Your task to perform on an android device: turn off sleep mode Image 0: 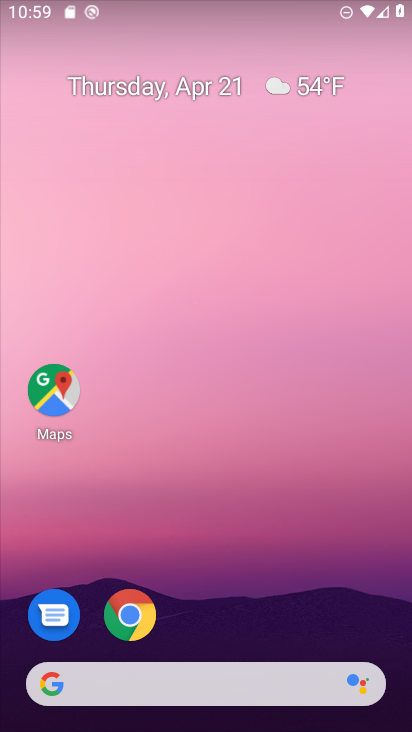
Step 0: drag from (288, 625) to (297, 115)
Your task to perform on an android device: turn off sleep mode Image 1: 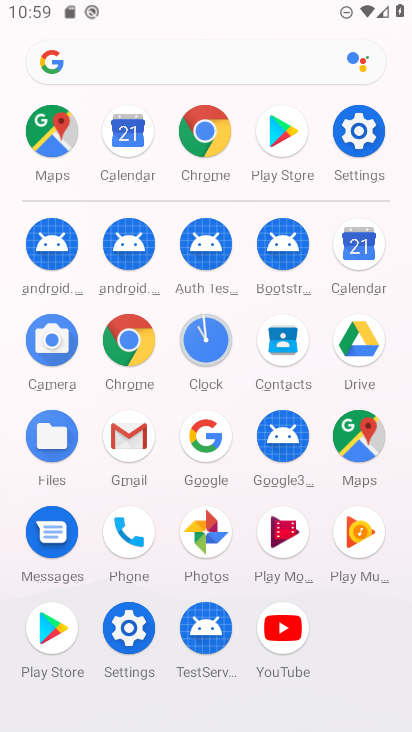
Step 1: click (370, 134)
Your task to perform on an android device: turn off sleep mode Image 2: 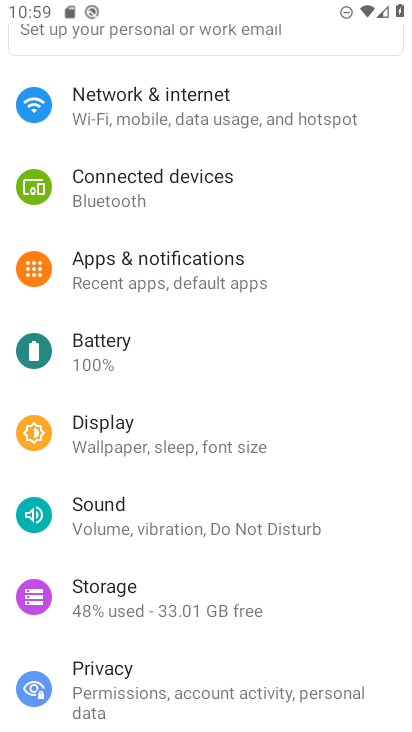
Step 2: drag from (235, 588) to (229, 484)
Your task to perform on an android device: turn off sleep mode Image 3: 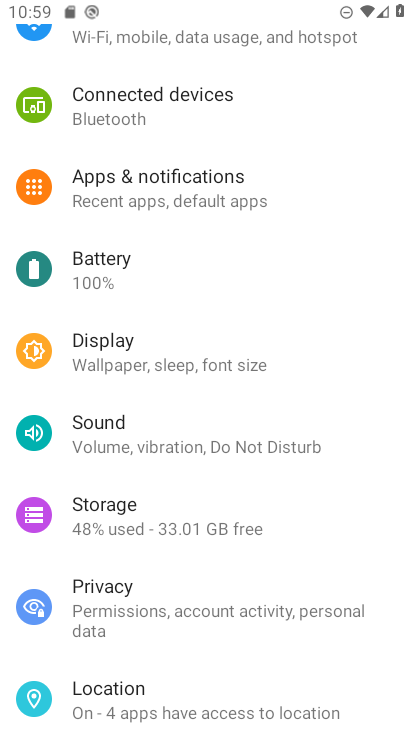
Step 3: drag from (219, 526) to (214, 455)
Your task to perform on an android device: turn off sleep mode Image 4: 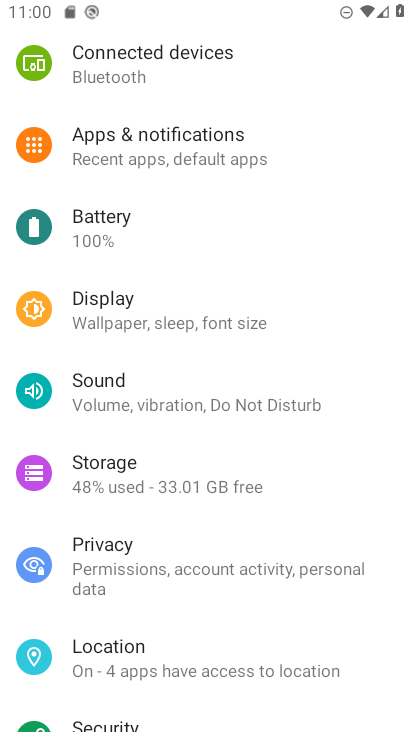
Step 4: drag from (182, 524) to (179, 462)
Your task to perform on an android device: turn off sleep mode Image 5: 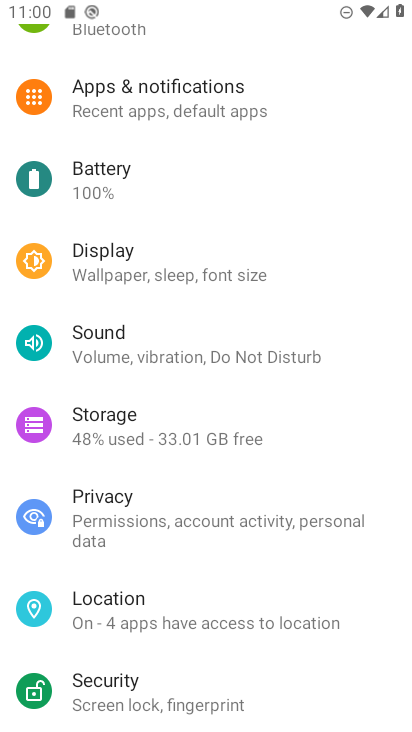
Step 5: drag from (181, 553) to (178, 464)
Your task to perform on an android device: turn off sleep mode Image 6: 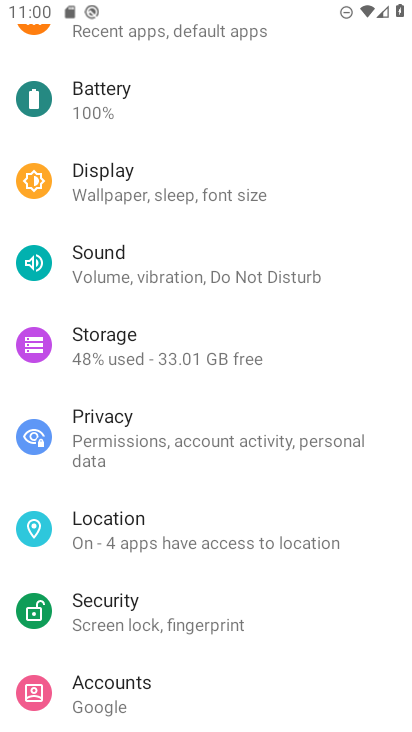
Step 6: drag from (176, 541) to (174, 441)
Your task to perform on an android device: turn off sleep mode Image 7: 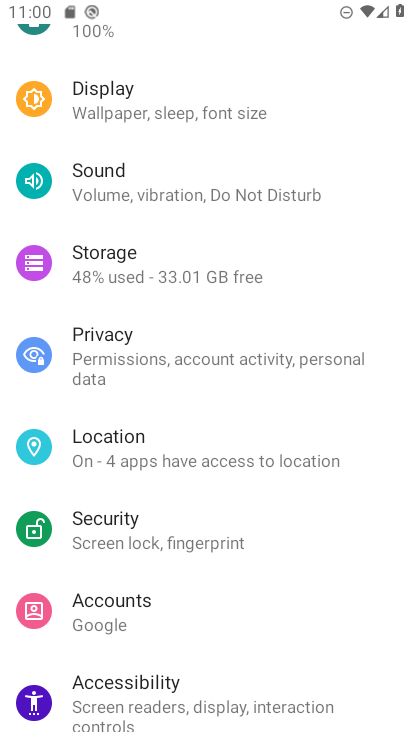
Step 7: drag from (177, 555) to (173, 481)
Your task to perform on an android device: turn off sleep mode Image 8: 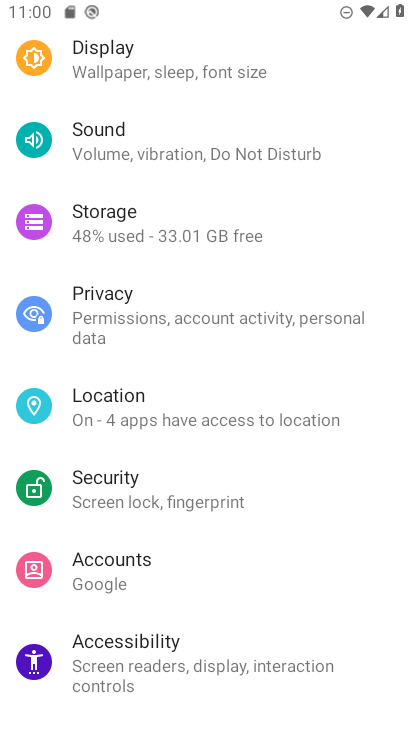
Step 8: drag from (176, 547) to (173, 482)
Your task to perform on an android device: turn off sleep mode Image 9: 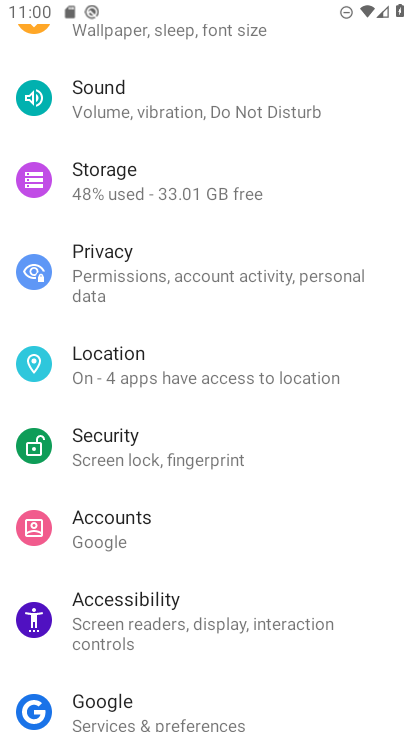
Step 9: drag from (180, 560) to (176, 498)
Your task to perform on an android device: turn off sleep mode Image 10: 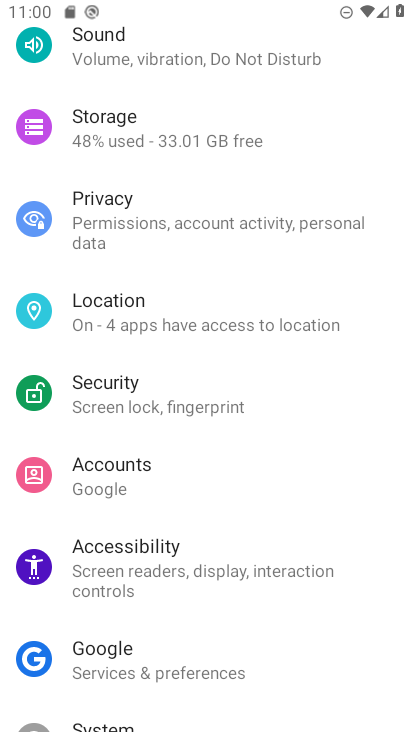
Step 10: drag from (176, 529) to (175, 453)
Your task to perform on an android device: turn off sleep mode Image 11: 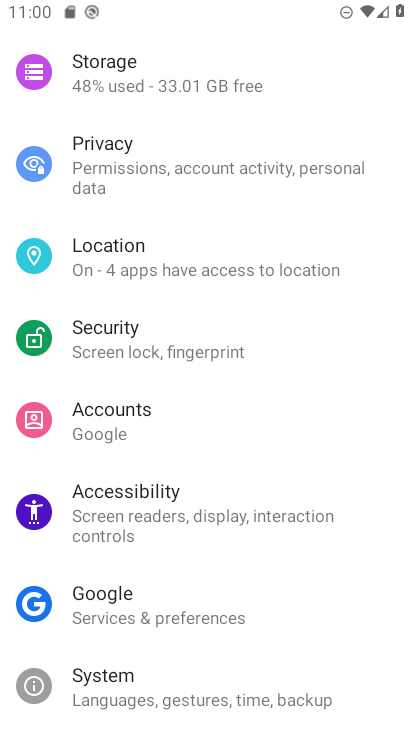
Step 11: drag from (175, 608) to (167, 521)
Your task to perform on an android device: turn off sleep mode Image 12: 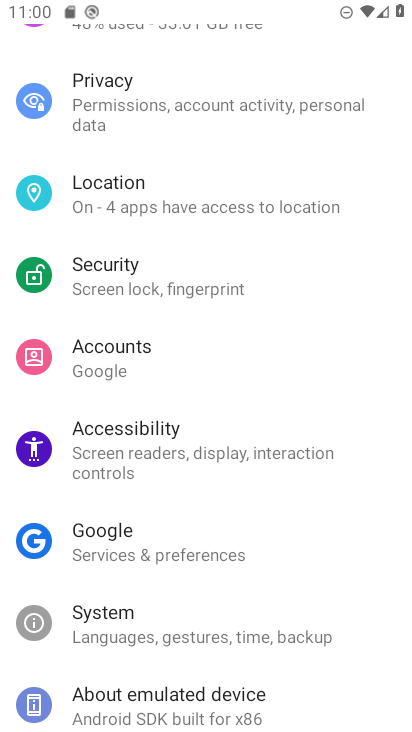
Step 12: drag from (164, 588) to (164, 514)
Your task to perform on an android device: turn off sleep mode Image 13: 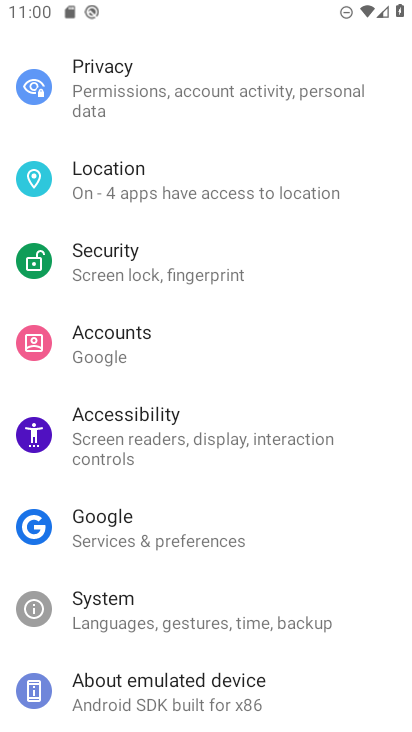
Step 13: drag from (164, 514) to (187, 591)
Your task to perform on an android device: turn off sleep mode Image 14: 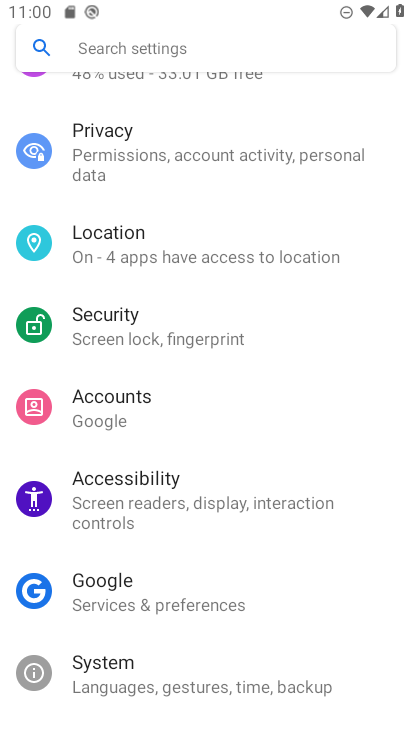
Step 14: drag from (188, 517) to (209, 587)
Your task to perform on an android device: turn off sleep mode Image 15: 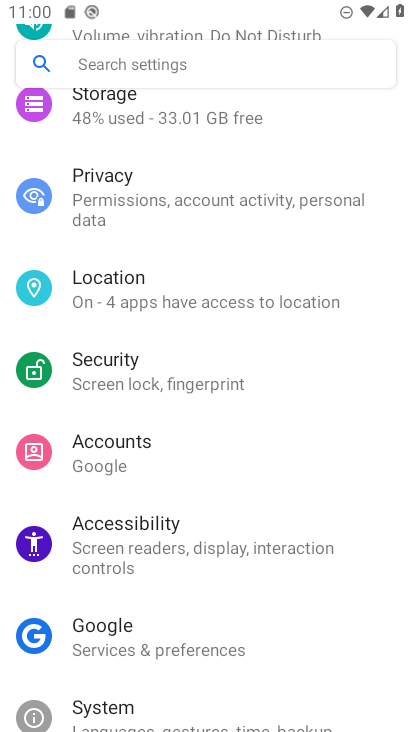
Step 15: drag from (195, 489) to (212, 563)
Your task to perform on an android device: turn off sleep mode Image 16: 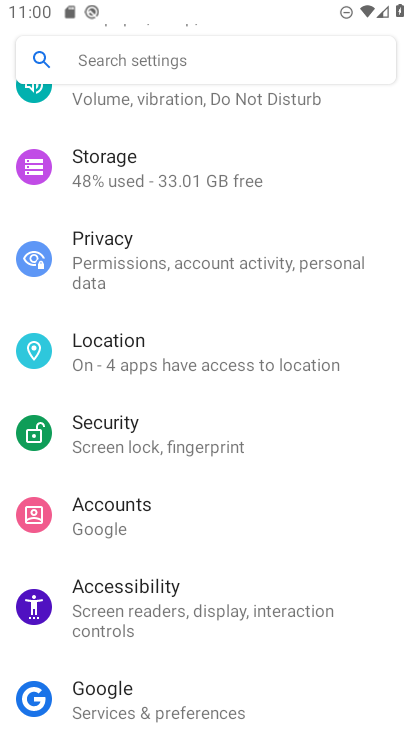
Step 16: drag from (200, 488) to (227, 580)
Your task to perform on an android device: turn off sleep mode Image 17: 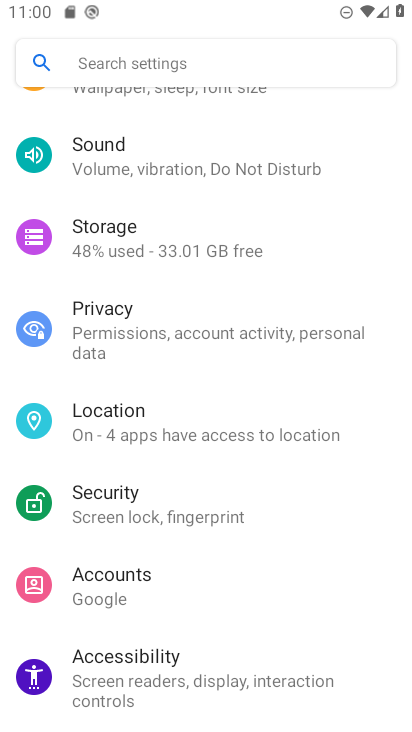
Step 17: drag from (203, 517) to (217, 578)
Your task to perform on an android device: turn off sleep mode Image 18: 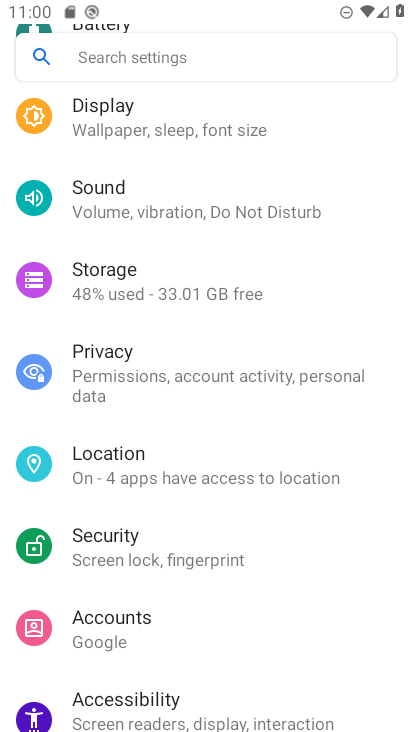
Step 18: drag from (196, 527) to (219, 588)
Your task to perform on an android device: turn off sleep mode Image 19: 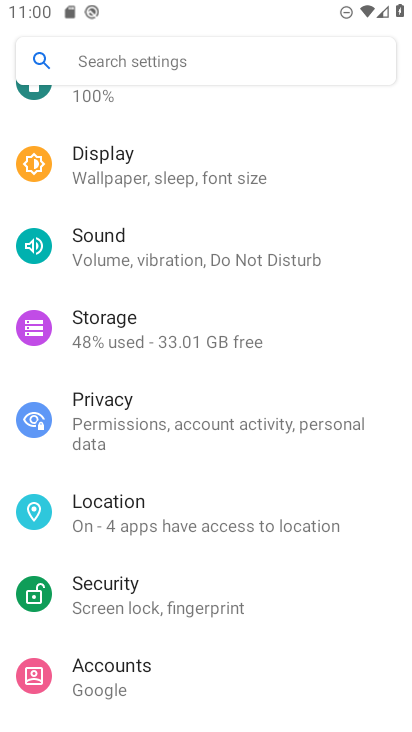
Step 19: drag from (204, 542) to (233, 611)
Your task to perform on an android device: turn off sleep mode Image 20: 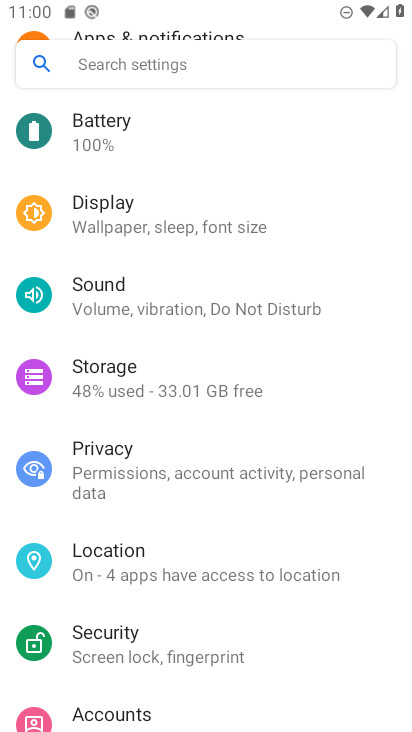
Step 20: drag from (211, 526) to (233, 611)
Your task to perform on an android device: turn off sleep mode Image 21: 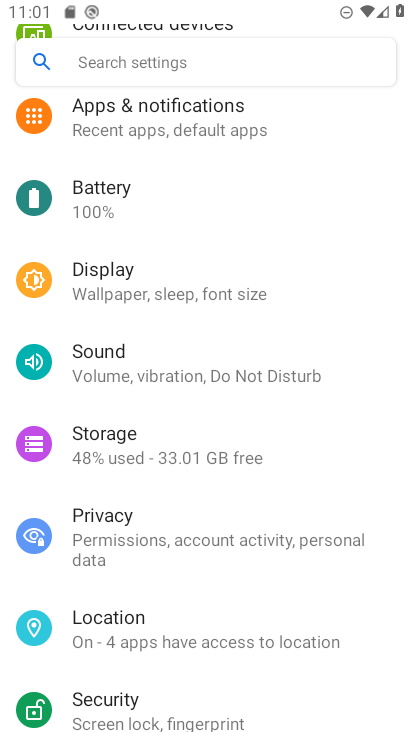
Step 21: drag from (204, 539) to (234, 640)
Your task to perform on an android device: turn off sleep mode Image 22: 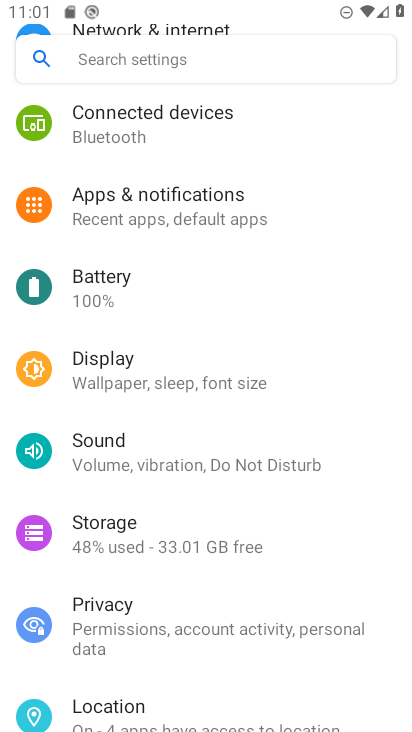
Step 22: drag from (207, 502) to (226, 592)
Your task to perform on an android device: turn off sleep mode Image 23: 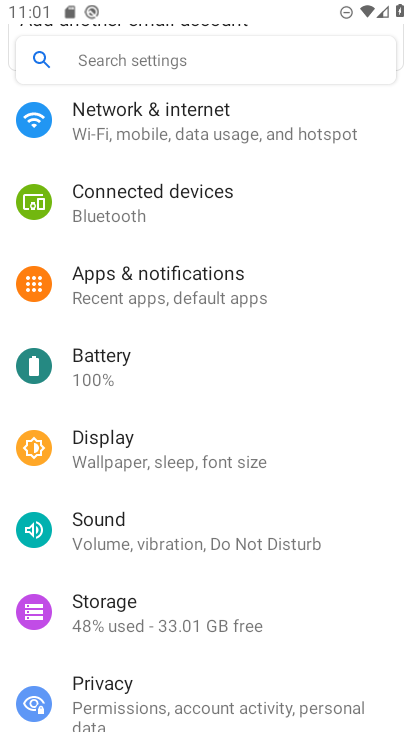
Step 23: click (207, 463)
Your task to perform on an android device: turn off sleep mode Image 24: 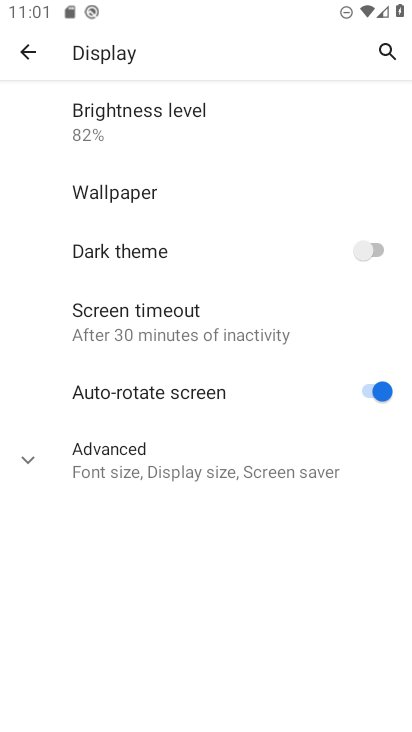
Step 24: click (175, 455)
Your task to perform on an android device: turn off sleep mode Image 25: 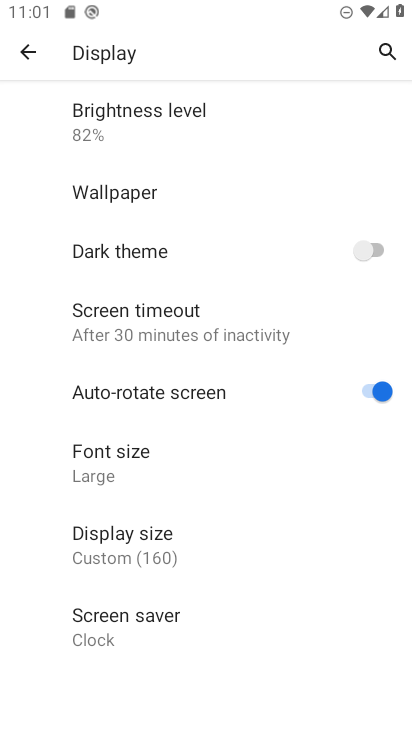
Step 25: task complete